Your task to perform on an android device: find photos in the google photos app Image 0: 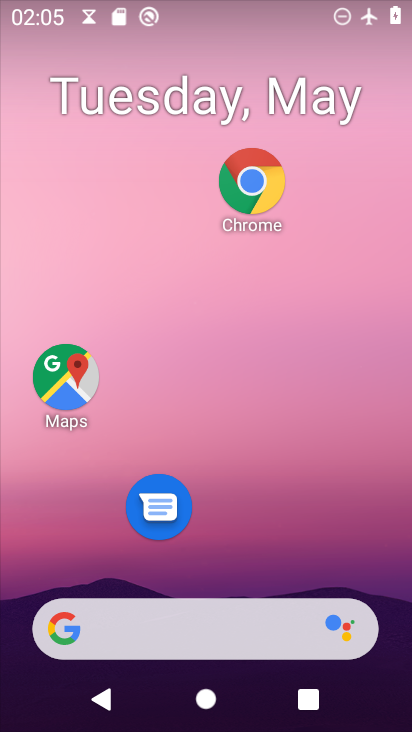
Step 0: drag from (284, 532) to (290, 307)
Your task to perform on an android device: find photos in the google photos app Image 1: 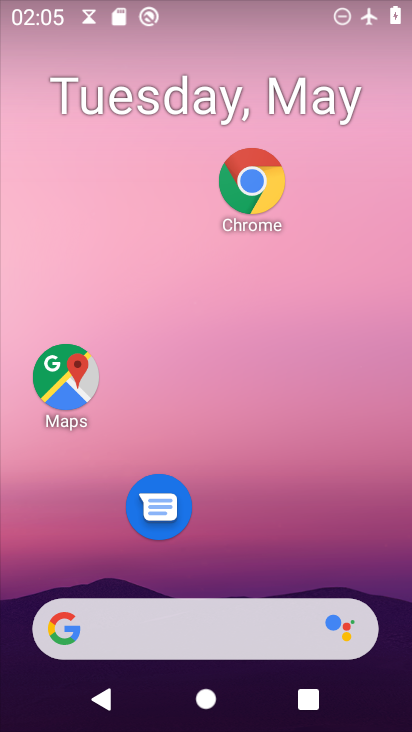
Step 1: drag from (287, 595) to (338, 241)
Your task to perform on an android device: find photos in the google photos app Image 2: 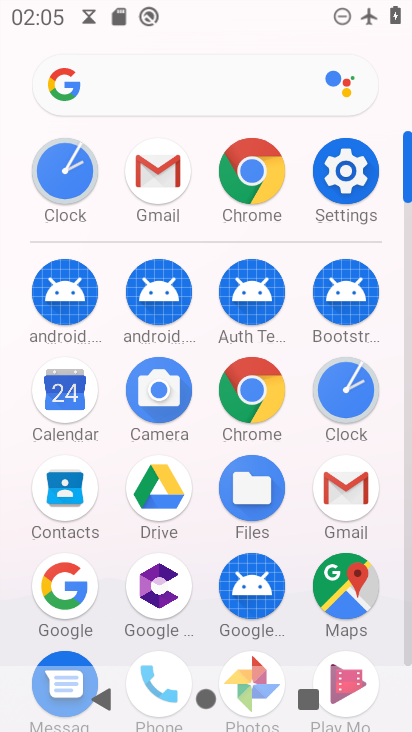
Step 2: click (256, 657)
Your task to perform on an android device: find photos in the google photos app Image 3: 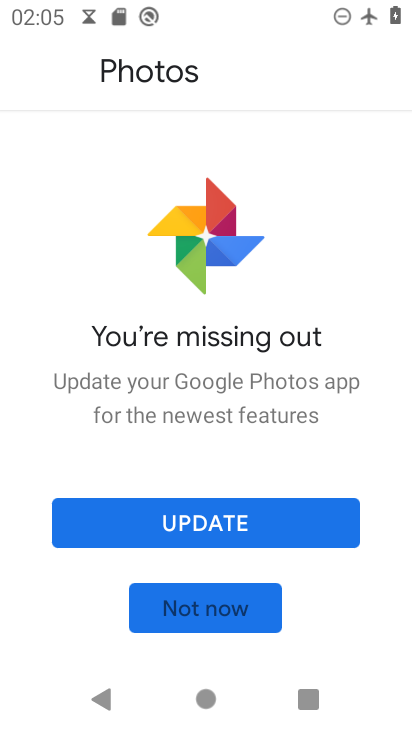
Step 3: click (227, 599)
Your task to perform on an android device: find photos in the google photos app Image 4: 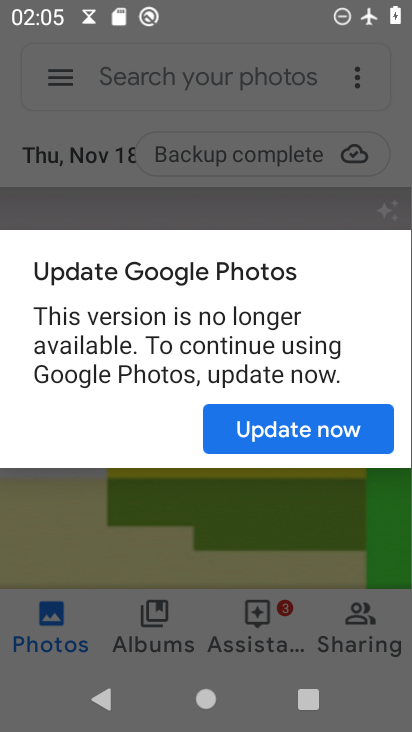
Step 4: press back button
Your task to perform on an android device: find photos in the google photos app Image 5: 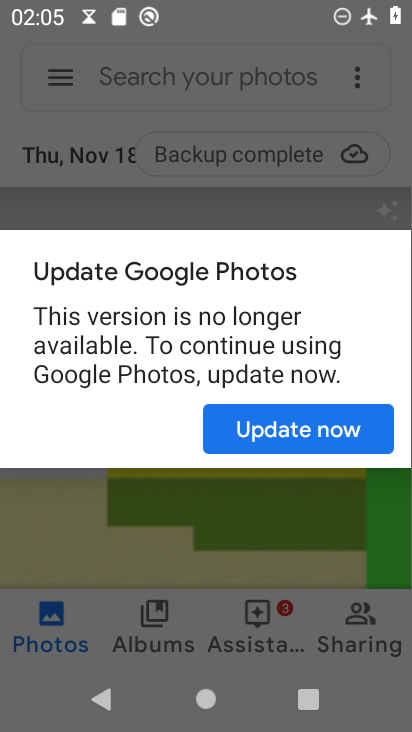
Step 5: click (328, 425)
Your task to perform on an android device: find photos in the google photos app Image 6: 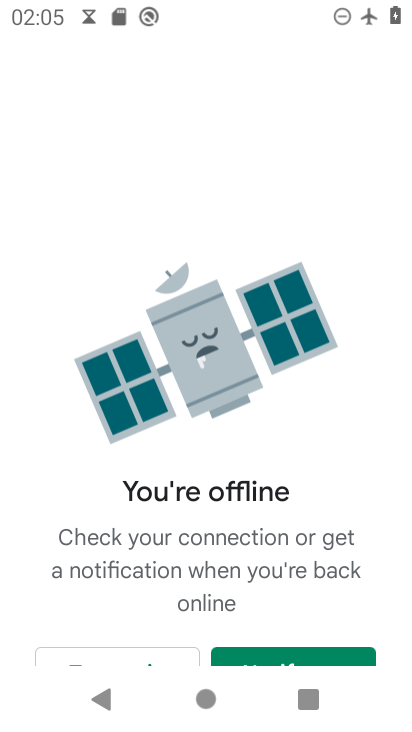
Step 6: press home button
Your task to perform on an android device: find photos in the google photos app Image 7: 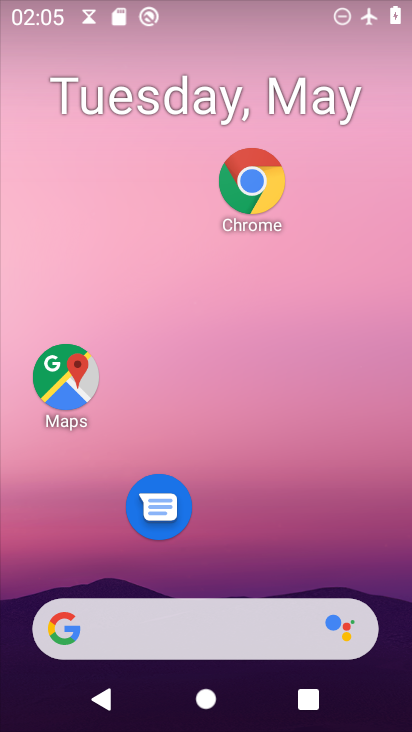
Step 7: drag from (217, 543) to (232, 280)
Your task to perform on an android device: find photos in the google photos app Image 8: 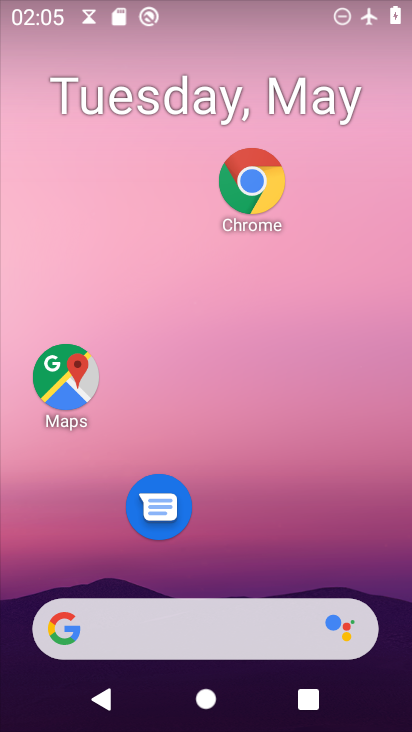
Step 8: drag from (231, 561) to (232, 287)
Your task to perform on an android device: find photos in the google photos app Image 9: 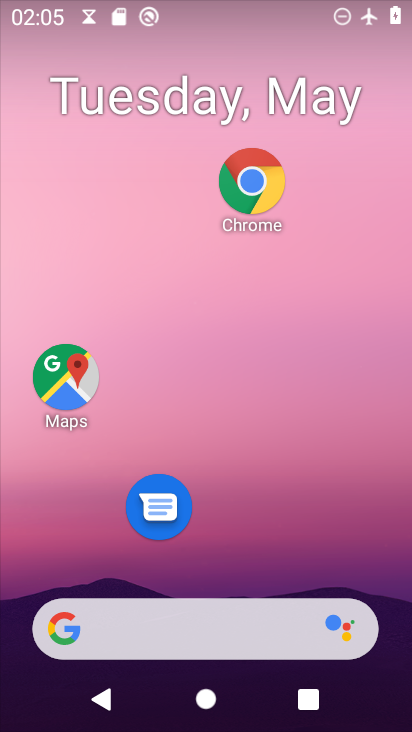
Step 9: drag from (216, 563) to (218, 262)
Your task to perform on an android device: find photos in the google photos app Image 10: 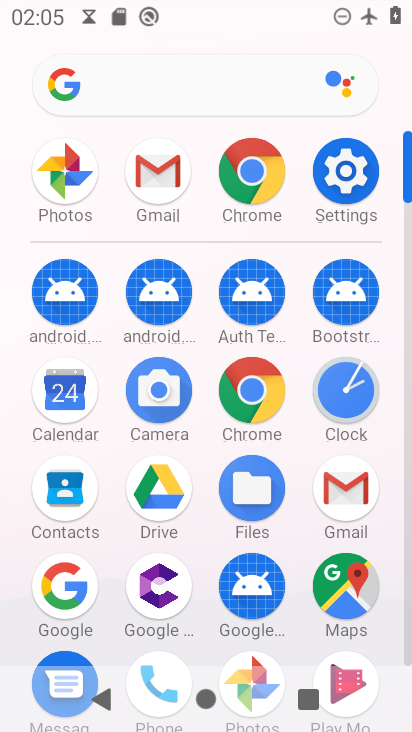
Step 10: click (256, 652)
Your task to perform on an android device: find photos in the google photos app Image 11: 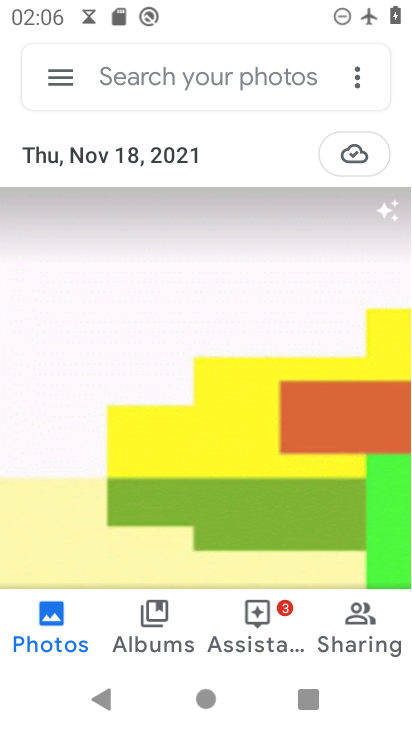
Step 11: task complete